Your task to perform on an android device: turn pop-ups on in chrome Image 0: 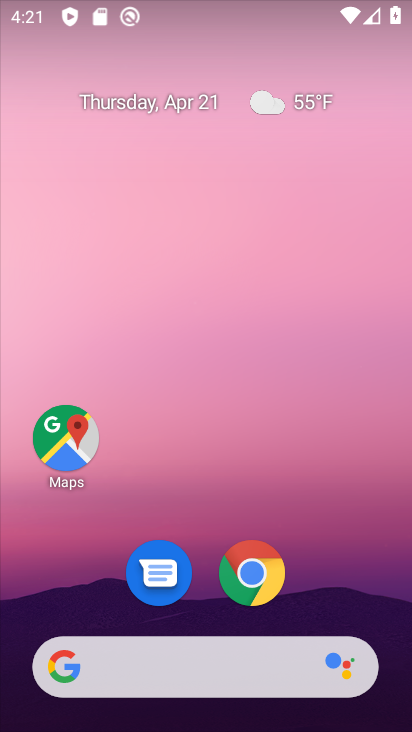
Step 0: click (235, 578)
Your task to perform on an android device: turn pop-ups on in chrome Image 1: 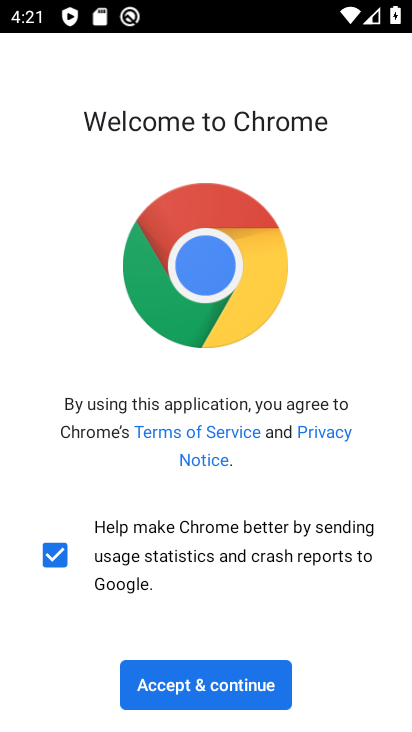
Step 1: click (217, 682)
Your task to perform on an android device: turn pop-ups on in chrome Image 2: 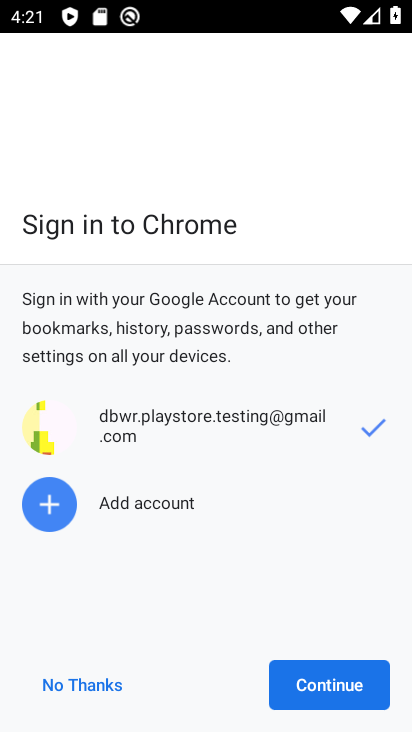
Step 2: click (303, 682)
Your task to perform on an android device: turn pop-ups on in chrome Image 3: 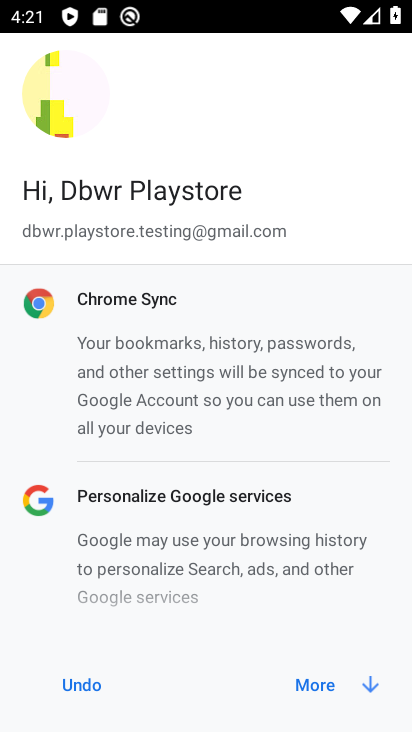
Step 3: click (303, 682)
Your task to perform on an android device: turn pop-ups on in chrome Image 4: 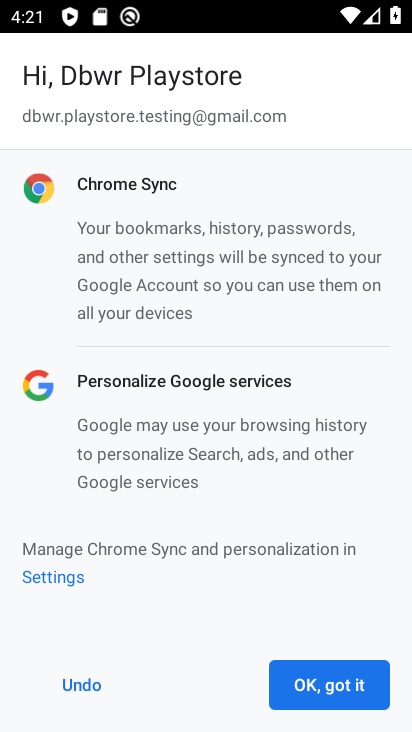
Step 4: click (303, 682)
Your task to perform on an android device: turn pop-ups on in chrome Image 5: 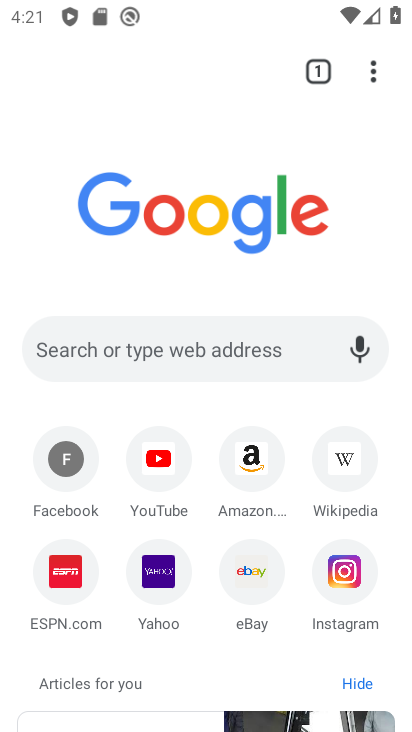
Step 5: click (376, 65)
Your task to perform on an android device: turn pop-ups on in chrome Image 6: 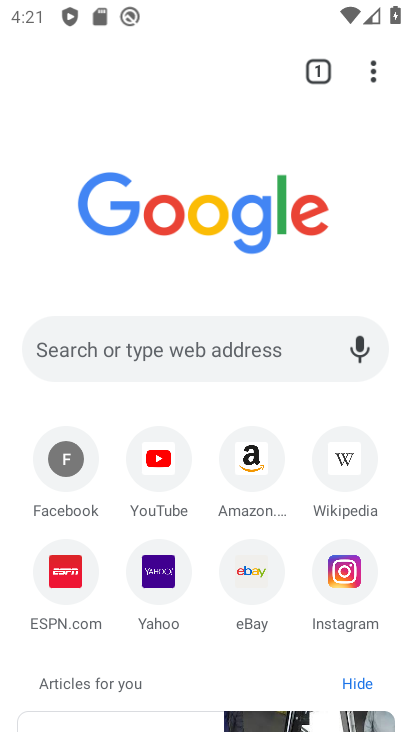
Step 6: drag from (374, 73) to (243, 602)
Your task to perform on an android device: turn pop-ups on in chrome Image 7: 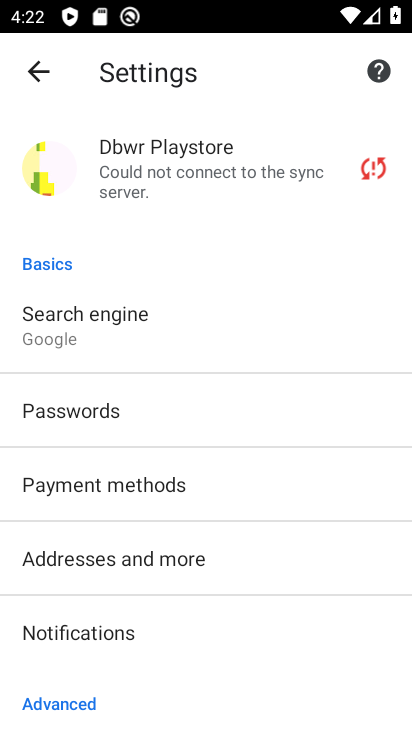
Step 7: drag from (265, 631) to (261, 315)
Your task to perform on an android device: turn pop-ups on in chrome Image 8: 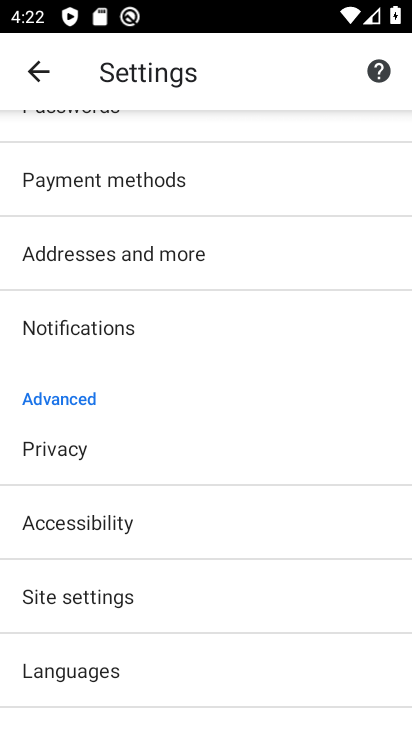
Step 8: click (255, 590)
Your task to perform on an android device: turn pop-ups on in chrome Image 9: 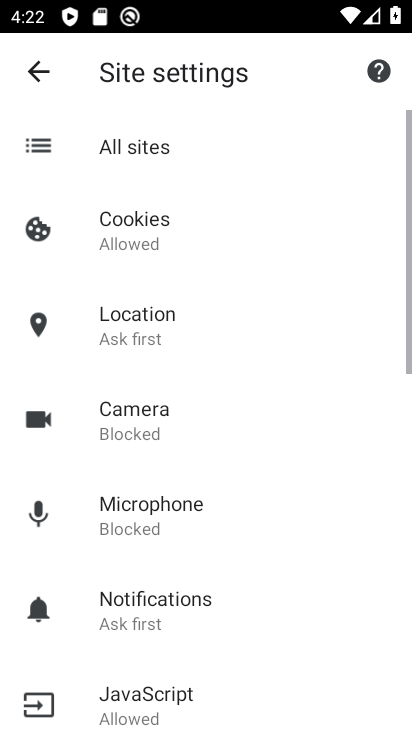
Step 9: drag from (255, 590) to (227, 242)
Your task to perform on an android device: turn pop-ups on in chrome Image 10: 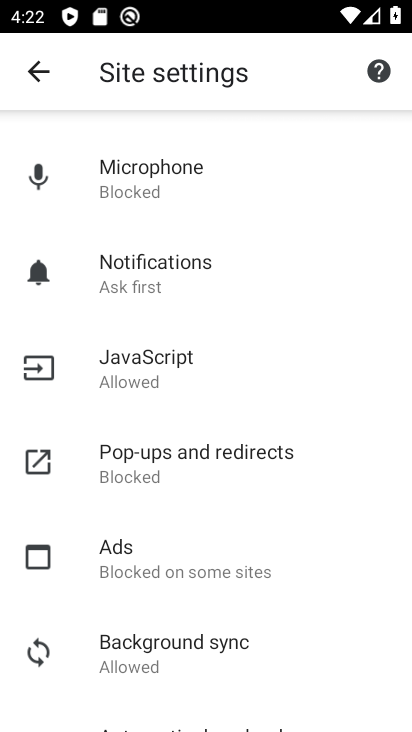
Step 10: click (263, 442)
Your task to perform on an android device: turn pop-ups on in chrome Image 11: 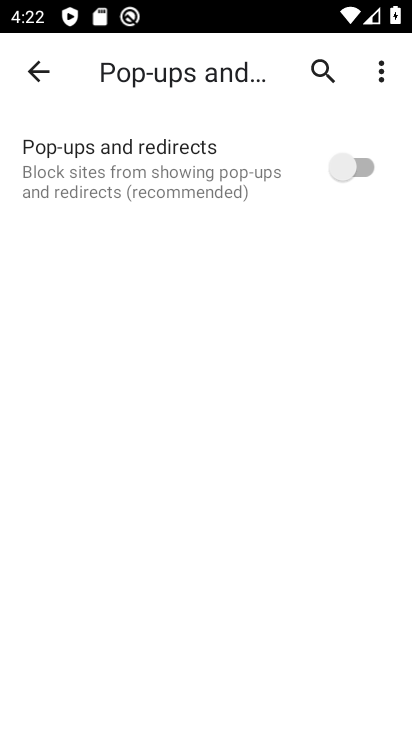
Step 11: click (358, 166)
Your task to perform on an android device: turn pop-ups on in chrome Image 12: 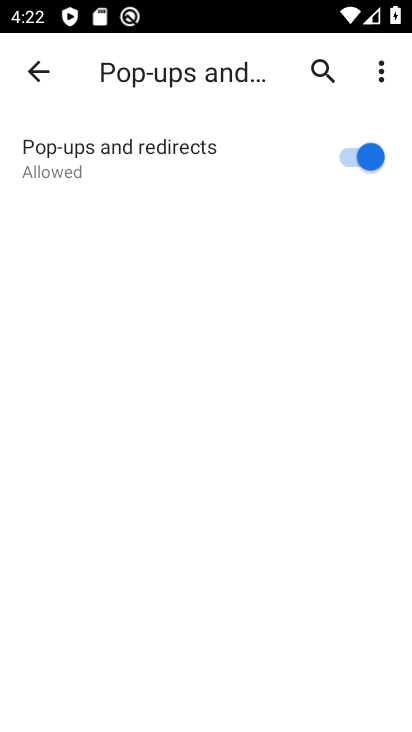
Step 12: task complete